Your task to perform on an android device: Go to wifi settings Image 0: 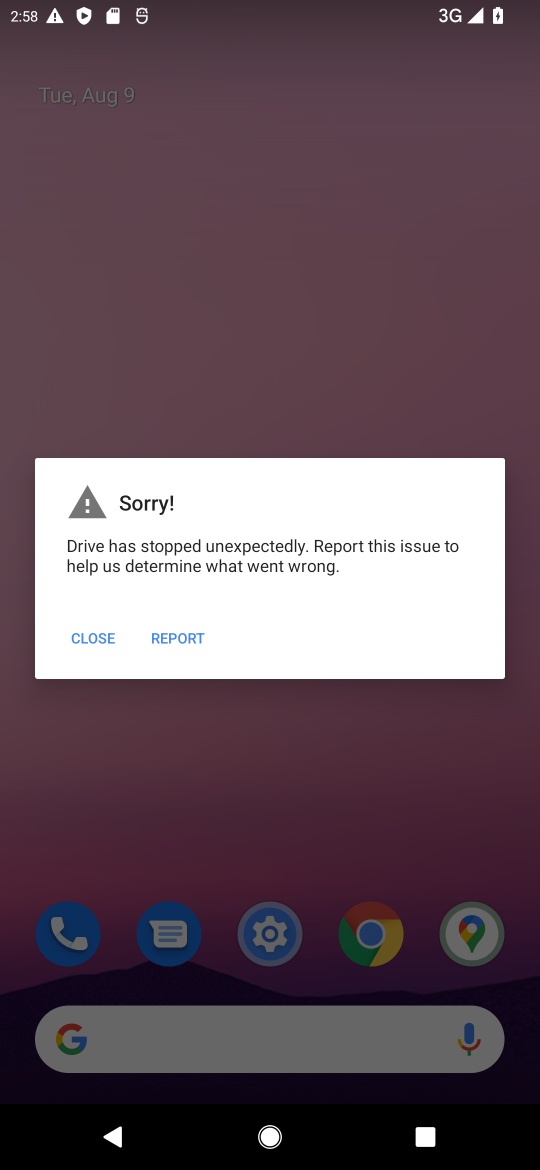
Step 0: click (75, 647)
Your task to perform on an android device: Go to wifi settings Image 1: 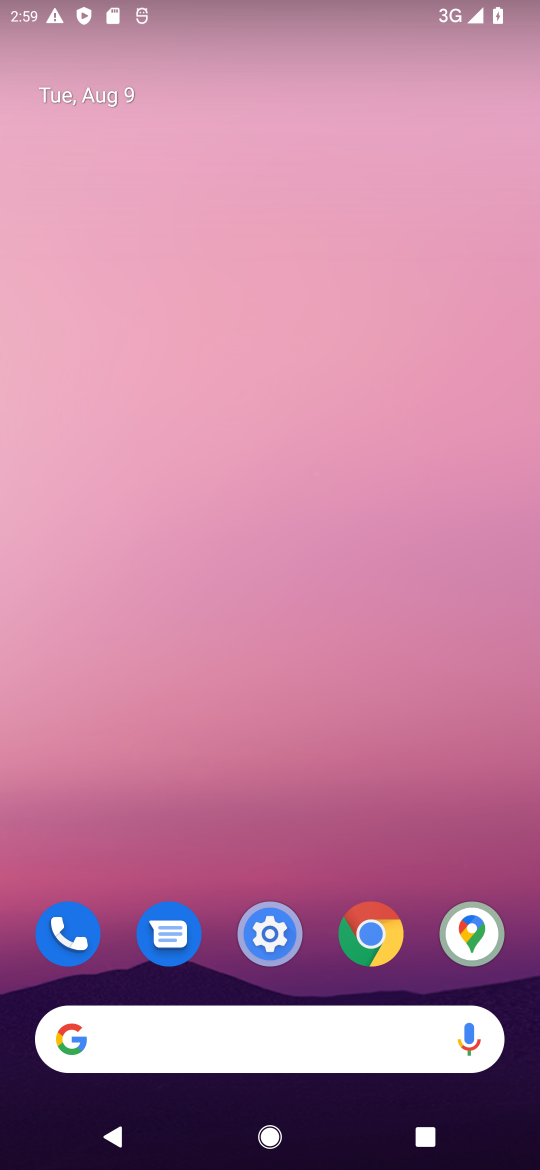
Step 1: click (277, 960)
Your task to perform on an android device: Go to wifi settings Image 2: 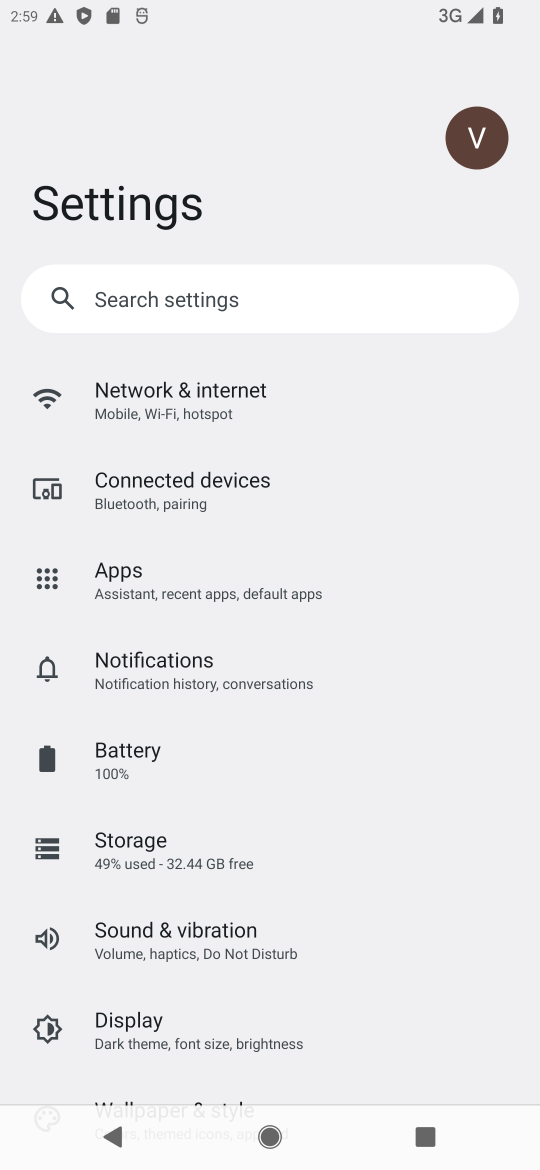
Step 2: click (293, 433)
Your task to perform on an android device: Go to wifi settings Image 3: 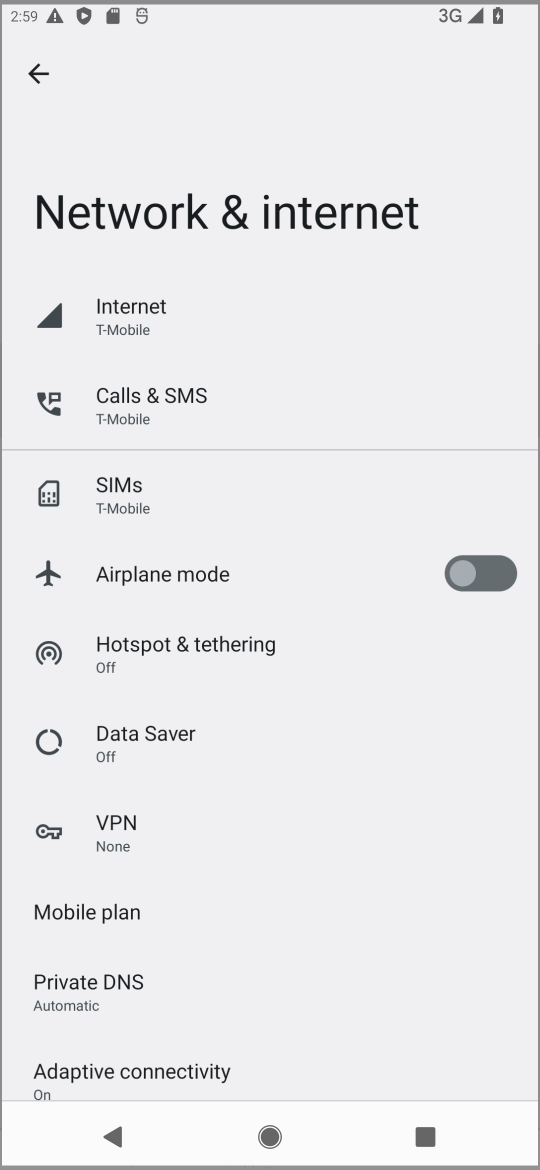
Step 3: task complete